Your task to perform on an android device: Open my contact list Image 0: 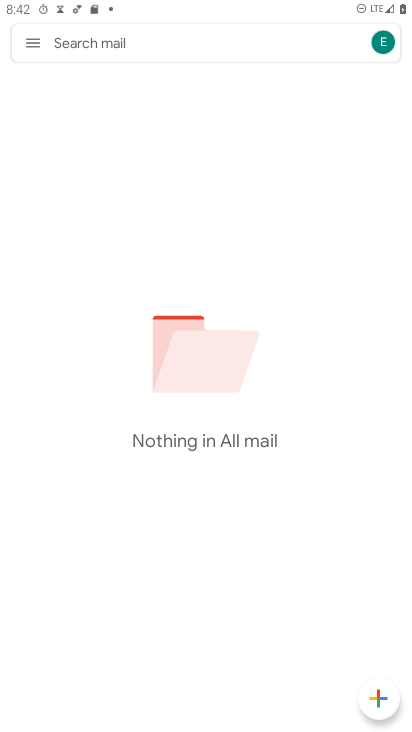
Step 0: press home button
Your task to perform on an android device: Open my contact list Image 1: 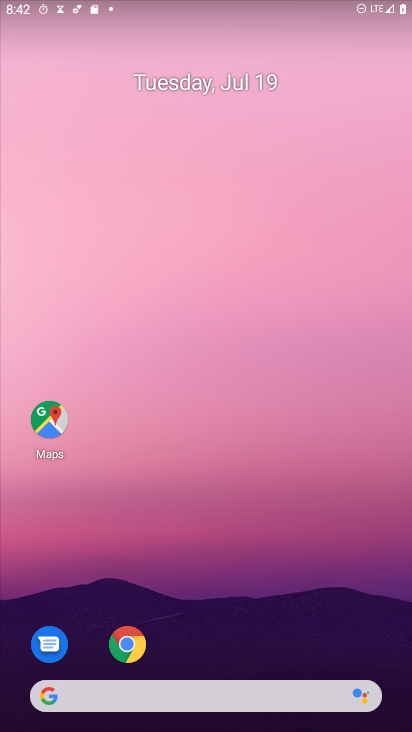
Step 1: drag from (82, 557) to (255, 95)
Your task to perform on an android device: Open my contact list Image 2: 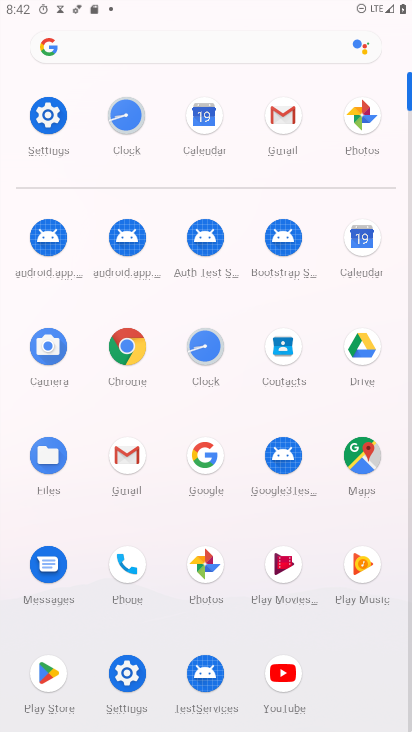
Step 2: click (298, 343)
Your task to perform on an android device: Open my contact list Image 3: 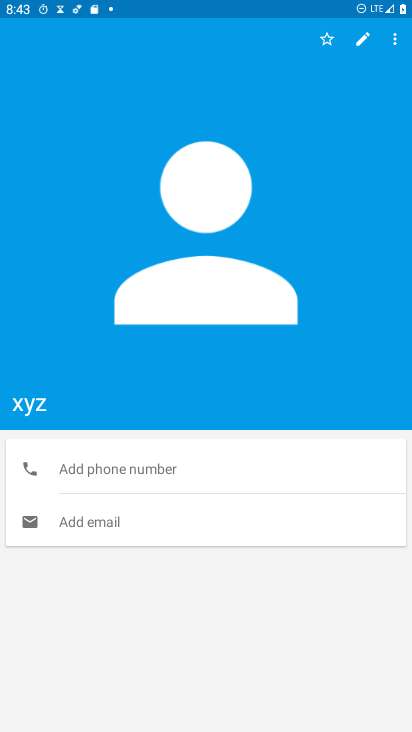
Step 3: drag from (410, 159) to (357, 315)
Your task to perform on an android device: Open my contact list Image 4: 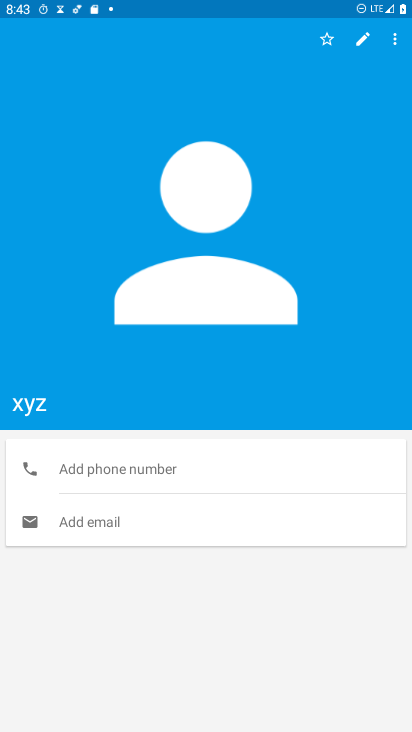
Step 4: press home button
Your task to perform on an android device: Open my contact list Image 5: 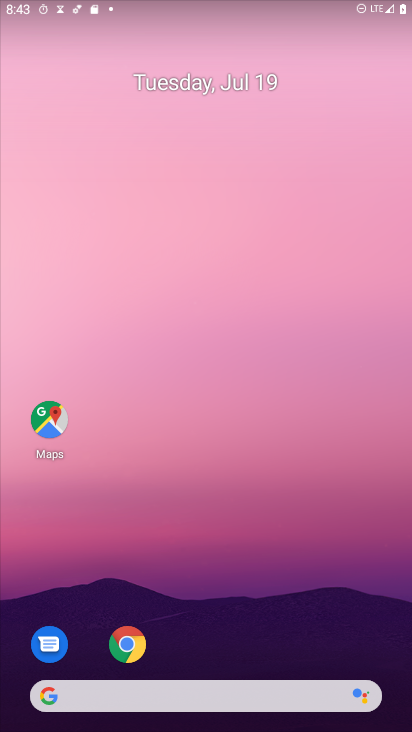
Step 5: click (390, 0)
Your task to perform on an android device: Open my contact list Image 6: 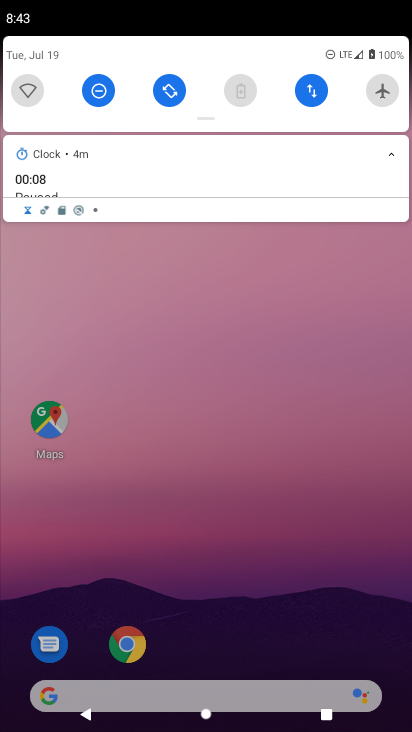
Step 6: task complete